Your task to perform on an android device: open a bookmark in the chrome app Image 0: 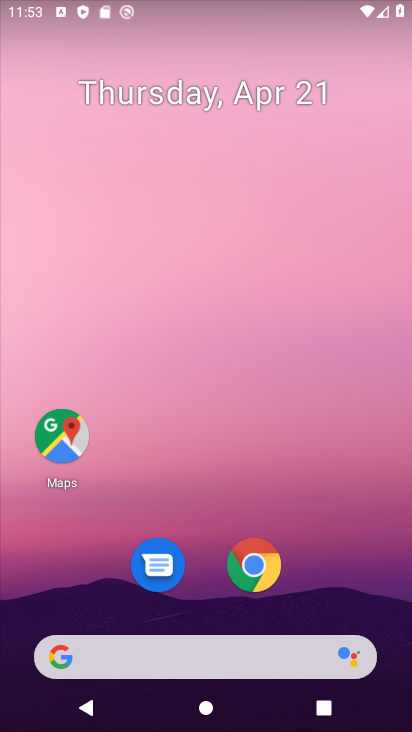
Step 0: click (357, 252)
Your task to perform on an android device: open a bookmark in the chrome app Image 1: 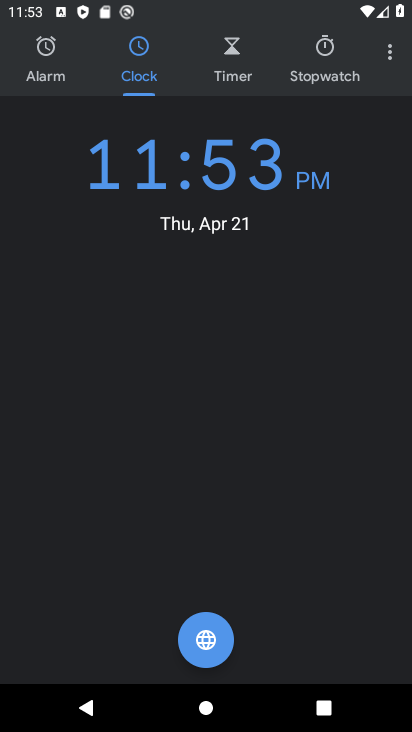
Step 1: press back button
Your task to perform on an android device: open a bookmark in the chrome app Image 2: 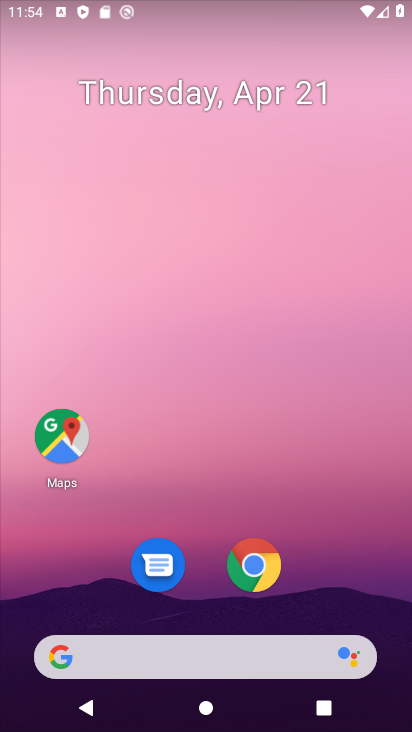
Step 2: click (252, 562)
Your task to perform on an android device: open a bookmark in the chrome app Image 3: 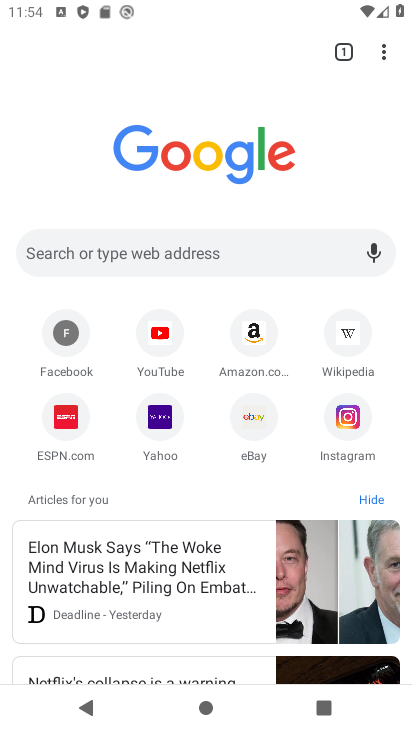
Step 3: click (382, 56)
Your task to perform on an android device: open a bookmark in the chrome app Image 4: 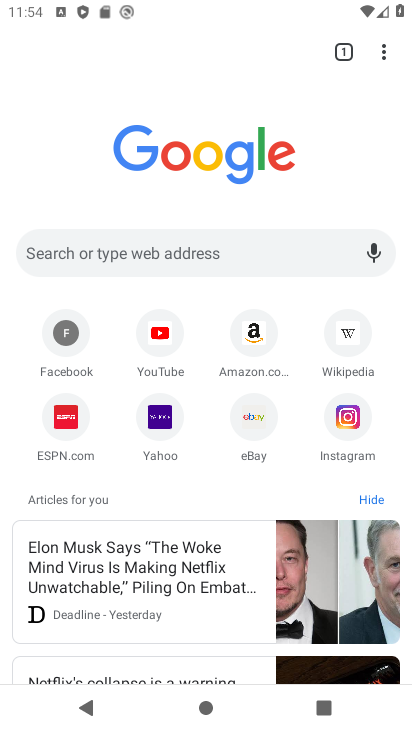
Step 4: click (384, 53)
Your task to perform on an android device: open a bookmark in the chrome app Image 5: 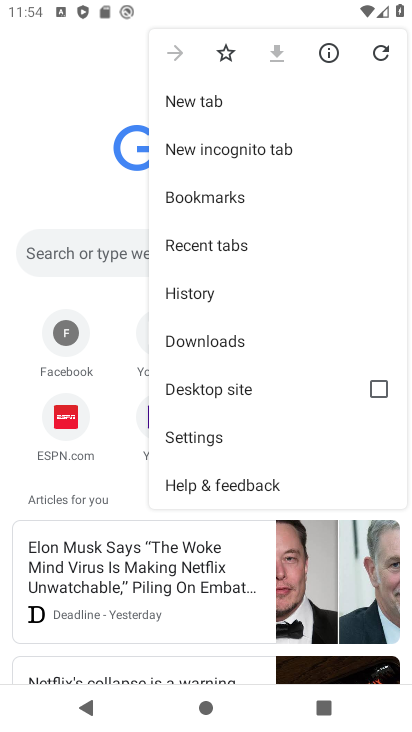
Step 5: click (214, 199)
Your task to perform on an android device: open a bookmark in the chrome app Image 6: 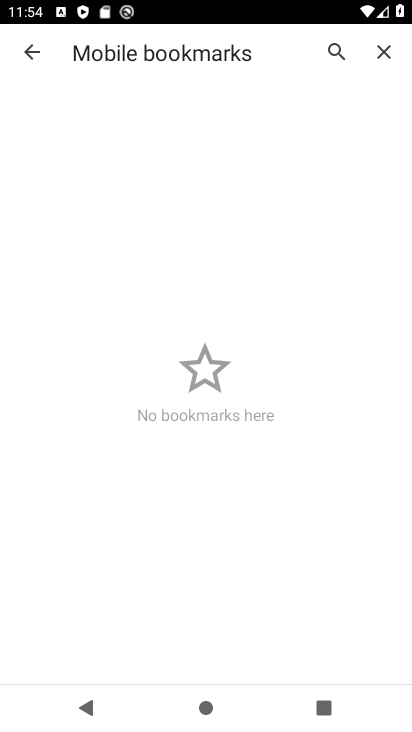
Step 6: task complete